Your task to perform on an android device: Show me the alarms in the clock app Image 0: 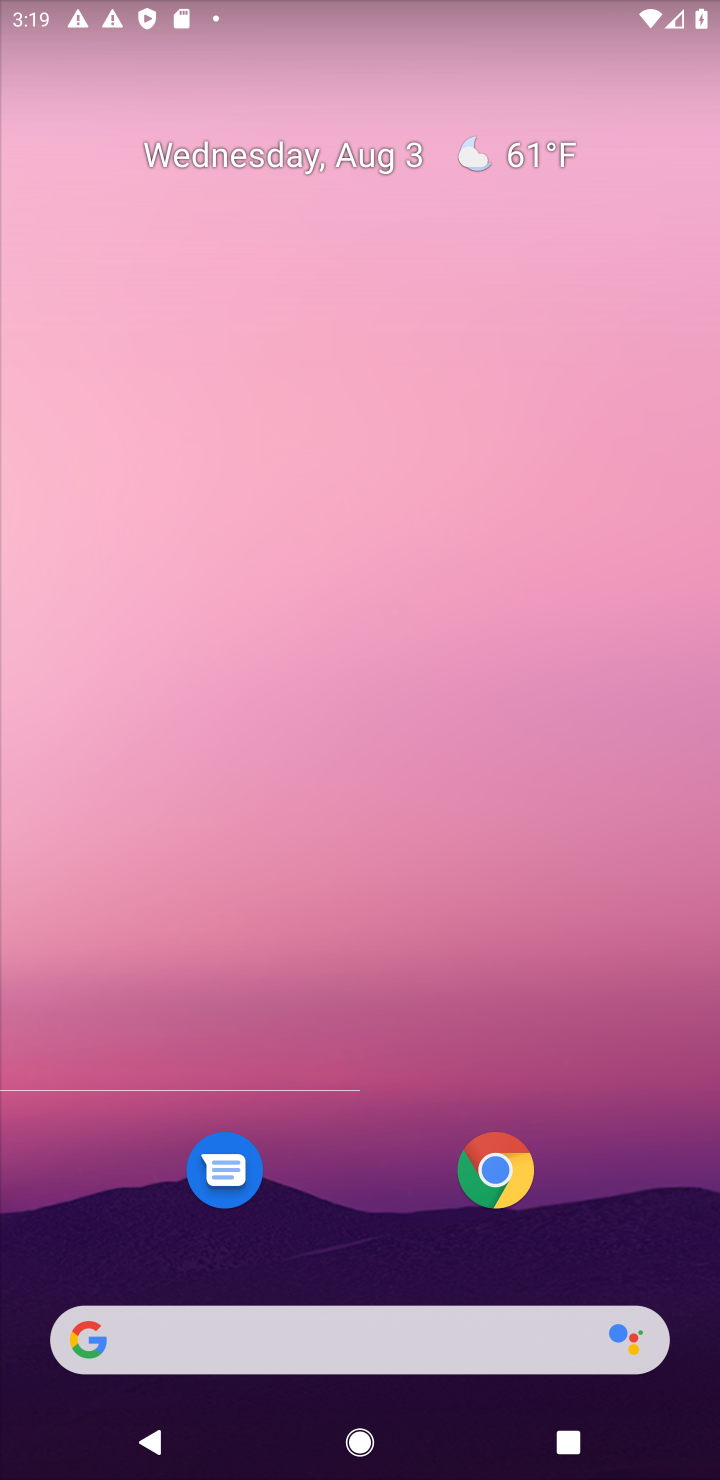
Step 0: press home button
Your task to perform on an android device: Show me the alarms in the clock app Image 1: 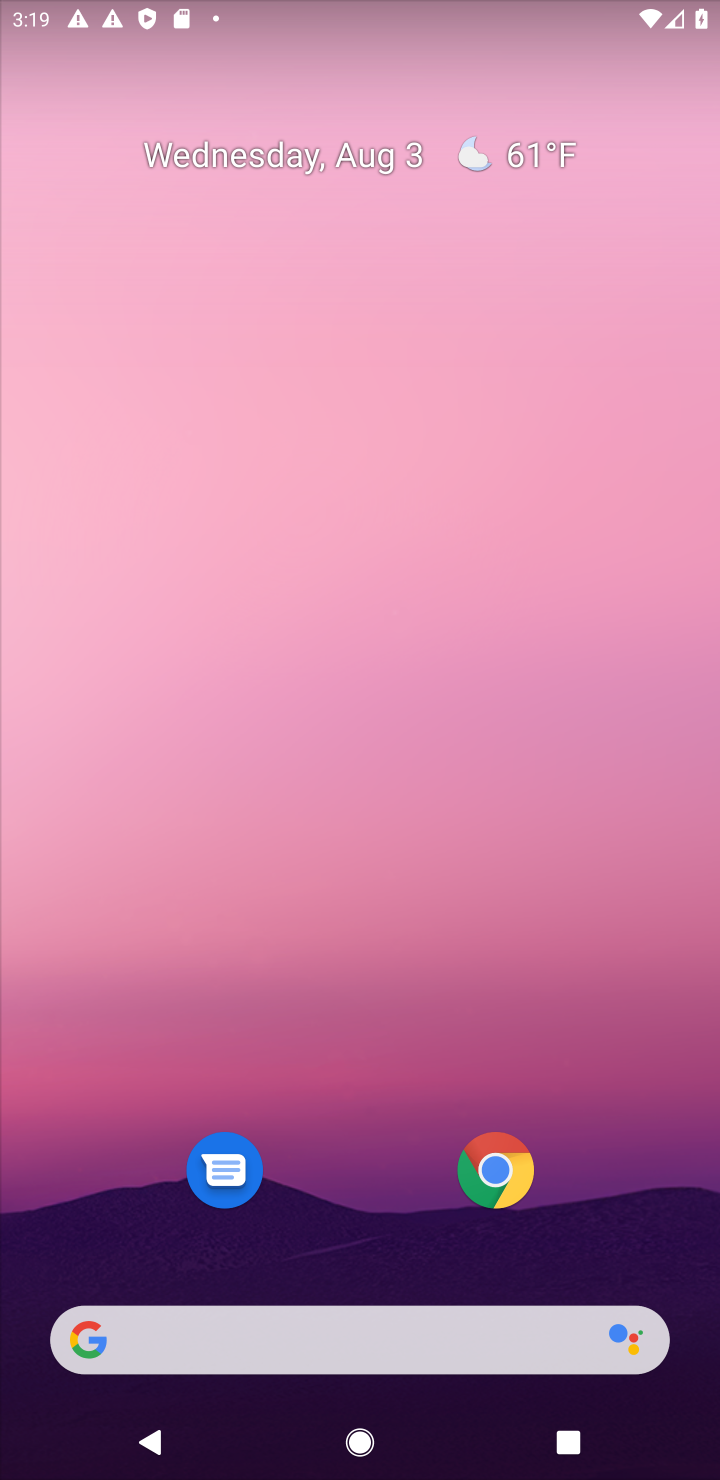
Step 1: drag from (394, 14) to (444, 1036)
Your task to perform on an android device: Show me the alarms in the clock app Image 2: 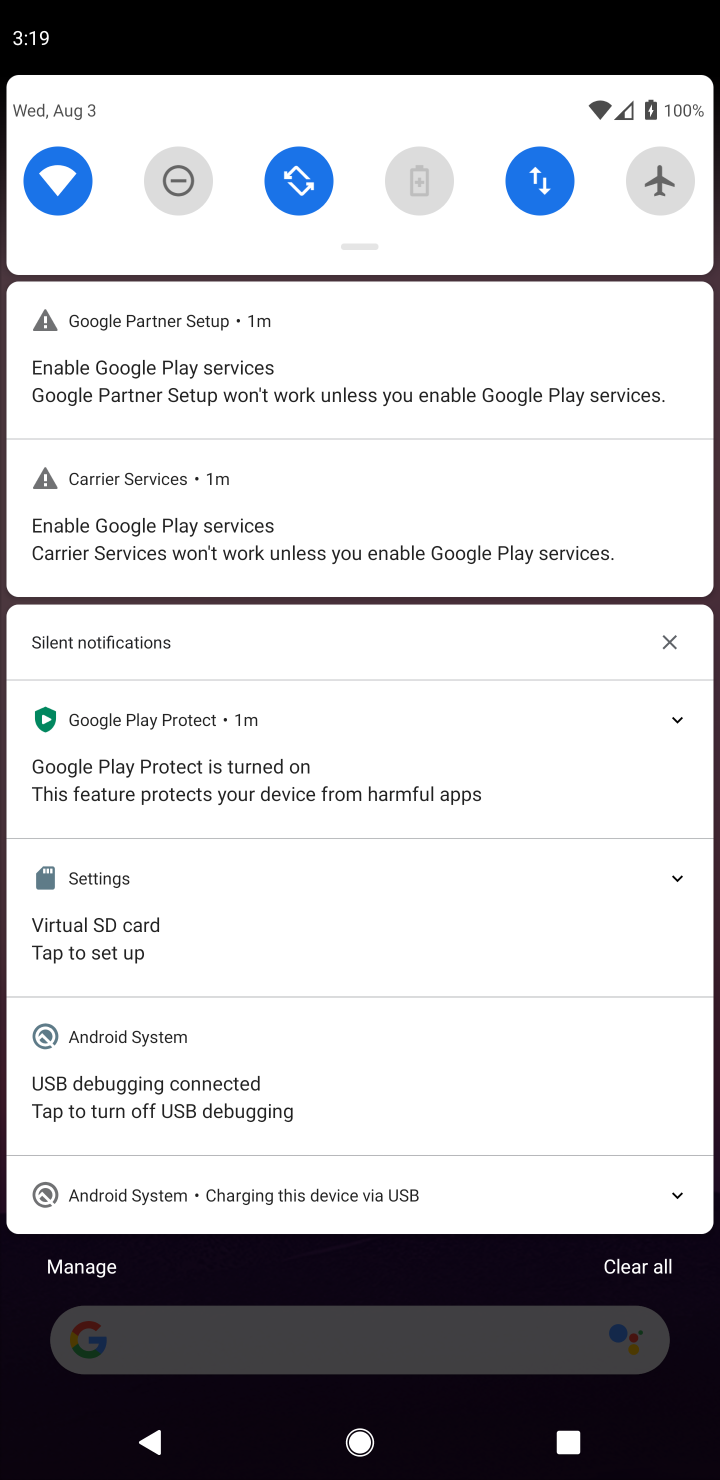
Step 2: click (357, 208)
Your task to perform on an android device: Show me the alarms in the clock app Image 3: 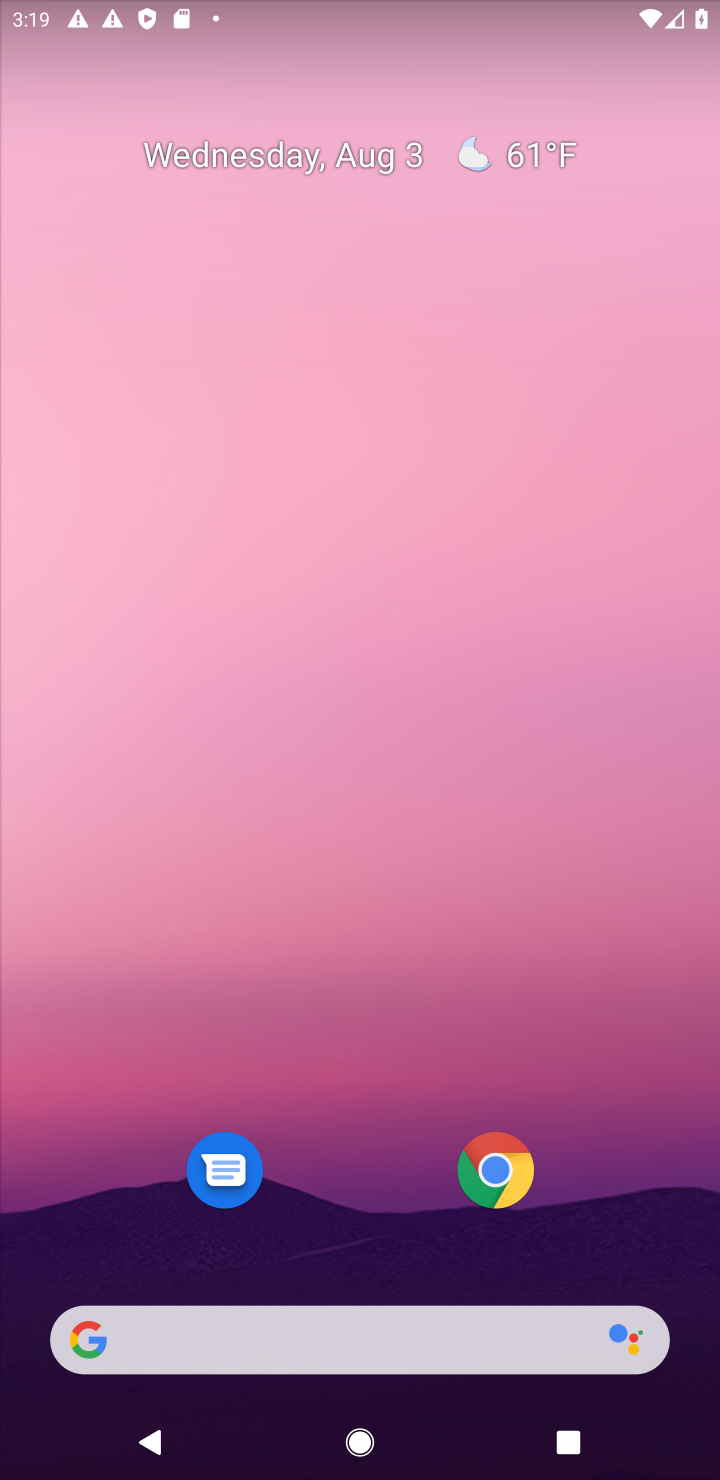
Step 3: press back button
Your task to perform on an android device: Show me the alarms in the clock app Image 4: 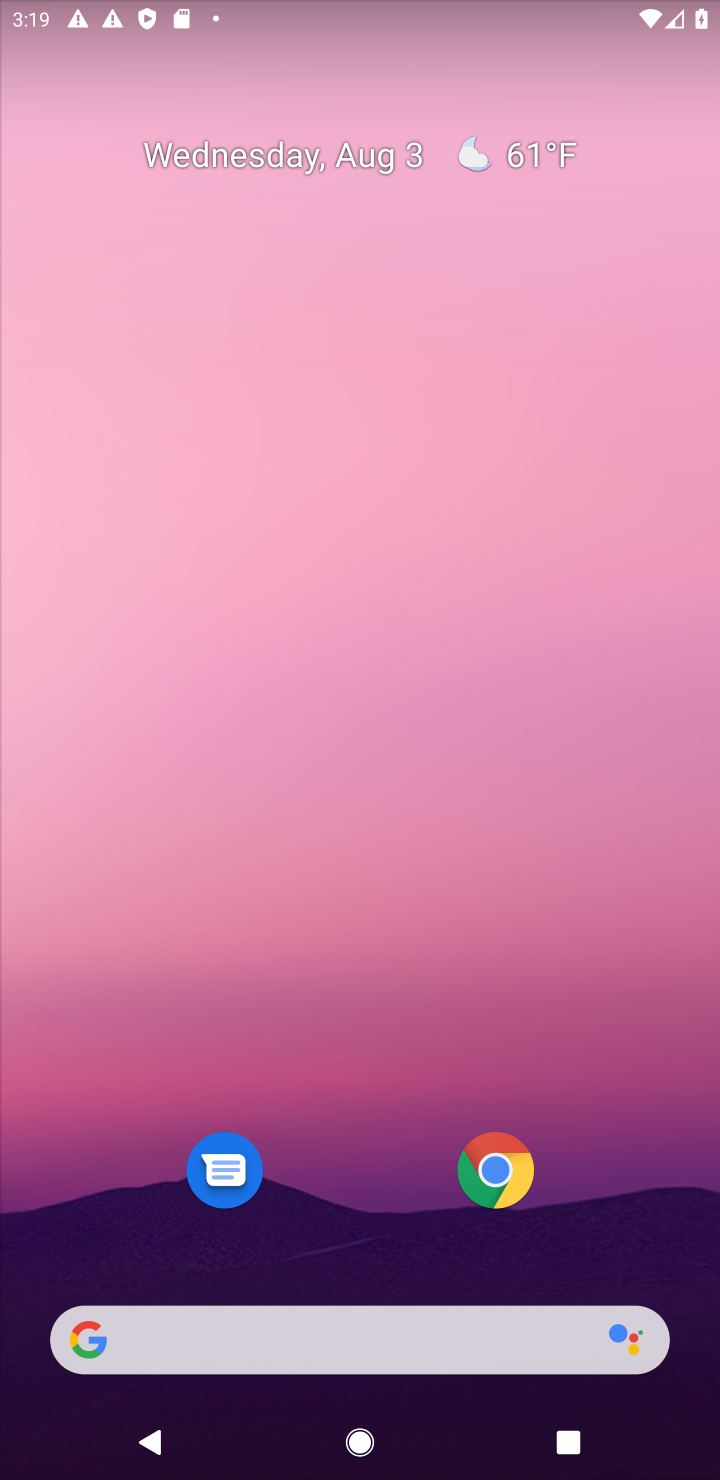
Step 4: drag from (683, 1230) to (453, 358)
Your task to perform on an android device: Show me the alarms in the clock app Image 5: 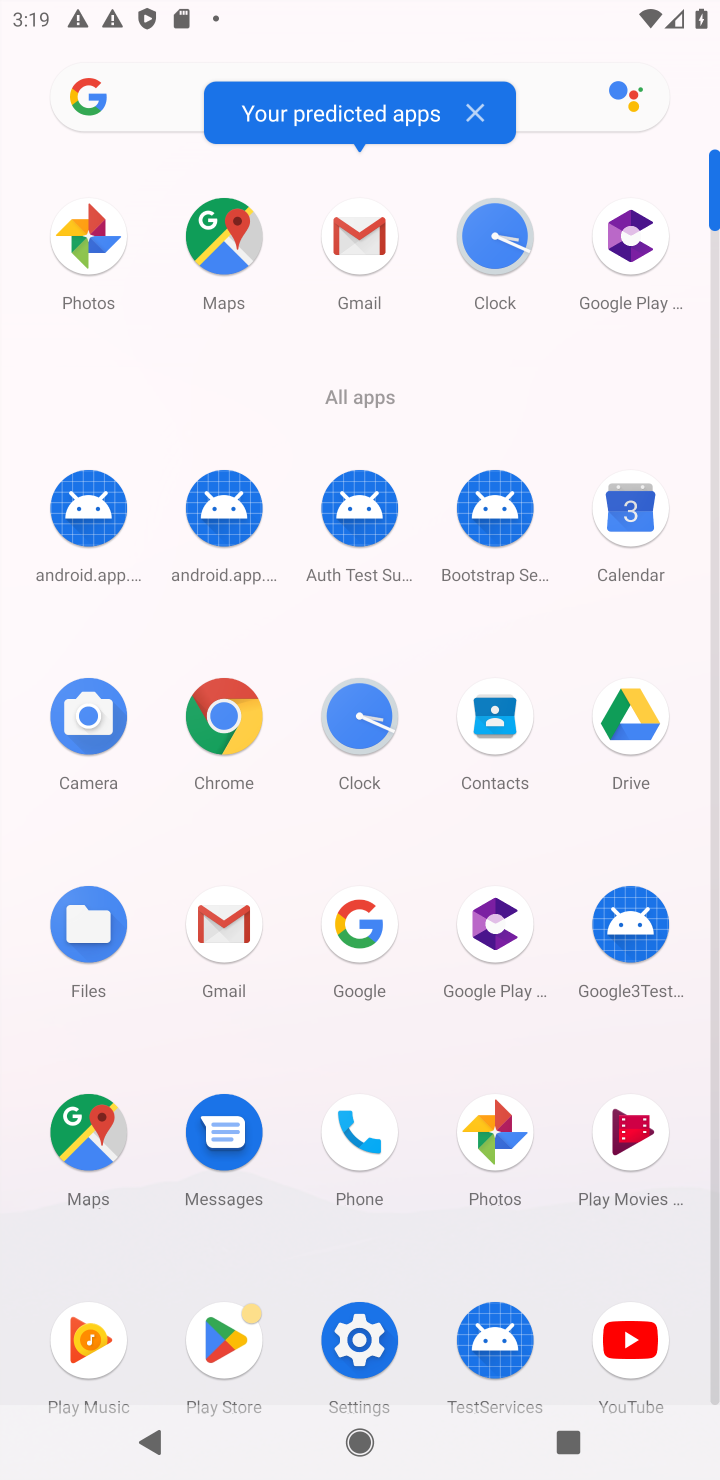
Step 5: click (508, 219)
Your task to perform on an android device: Show me the alarms in the clock app Image 6: 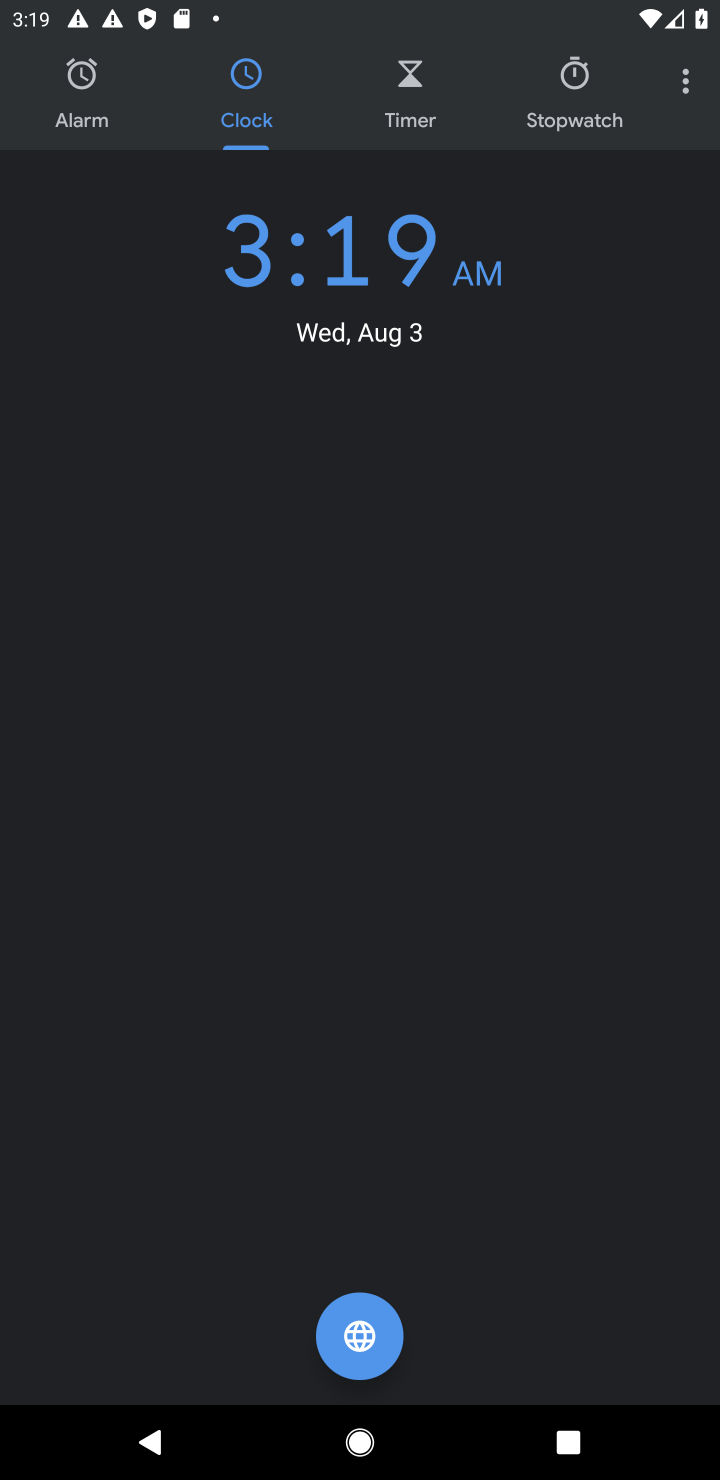
Step 6: click (69, 91)
Your task to perform on an android device: Show me the alarms in the clock app Image 7: 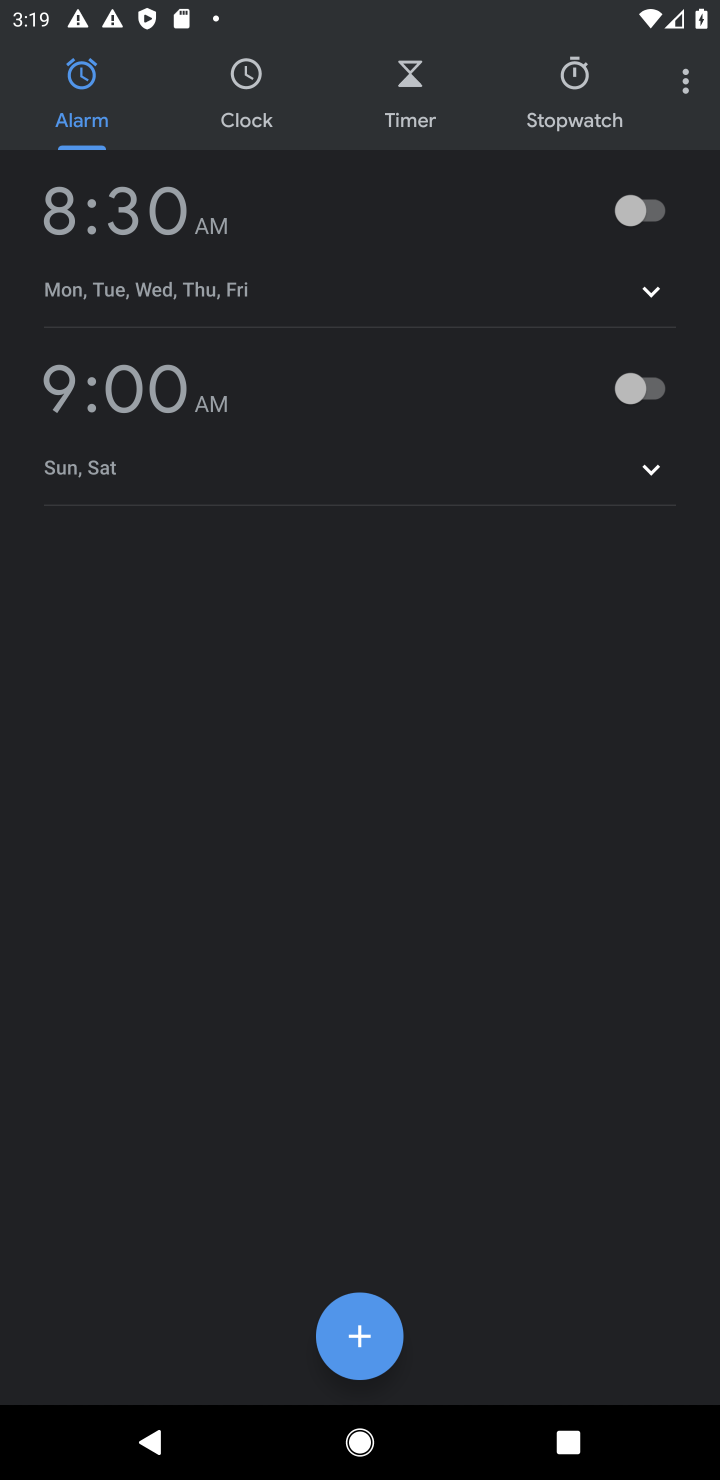
Step 7: task complete